Your task to perform on an android device: What's the weather going to be tomorrow? Image 0: 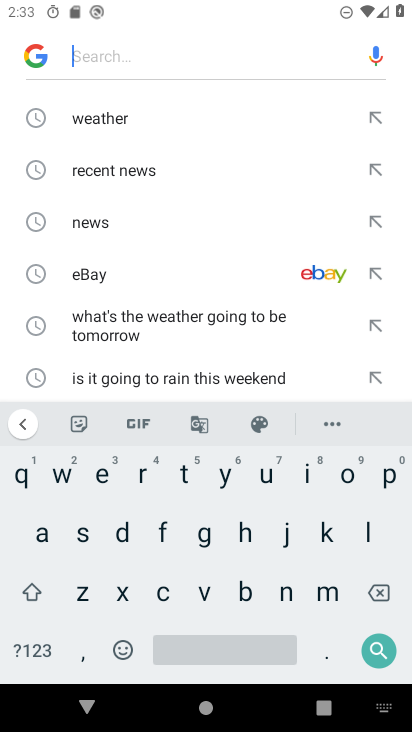
Step 0: click (90, 119)
Your task to perform on an android device: What's the weather going to be tomorrow? Image 1: 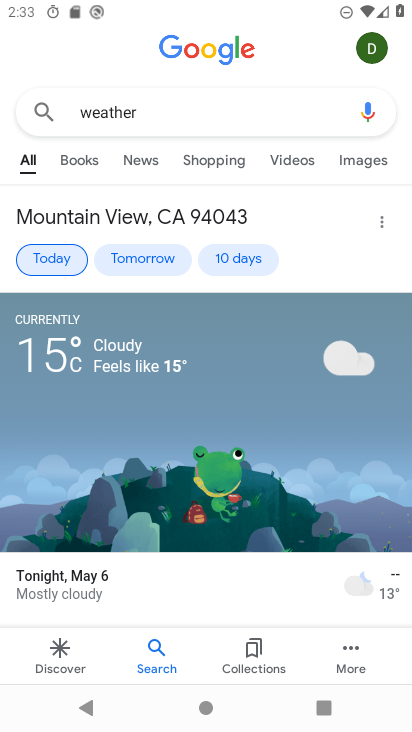
Step 1: click (137, 261)
Your task to perform on an android device: What's the weather going to be tomorrow? Image 2: 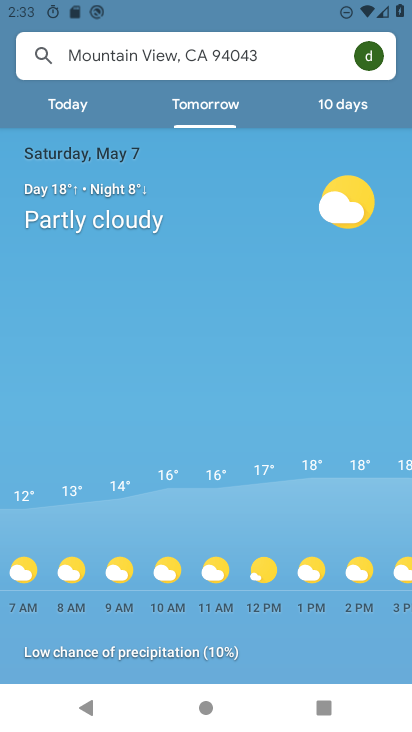
Step 2: task complete